Your task to perform on an android device: turn off picture-in-picture Image 0: 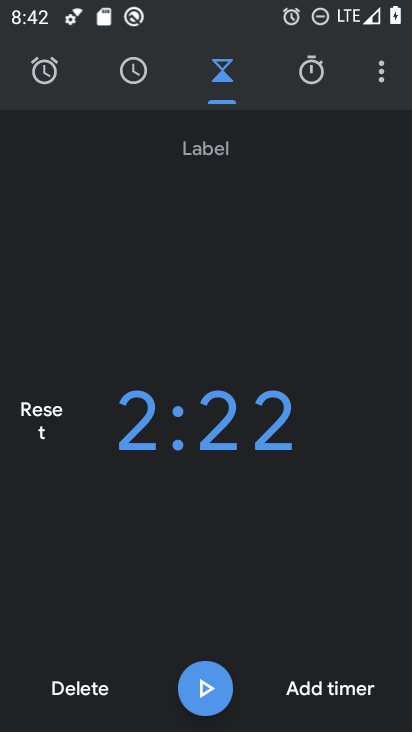
Step 0: press home button
Your task to perform on an android device: turn off picture-in-picture Image 1: 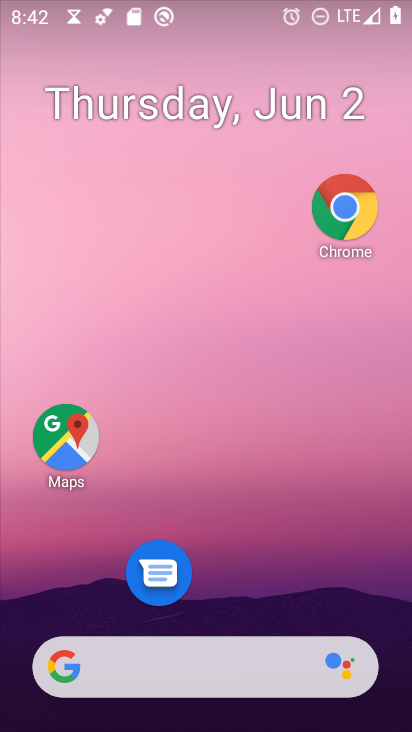
Step 1: drag from (359, 201) to (241, 440)
Your task to perform on an android device: turn off picture-in-picture Image 2: 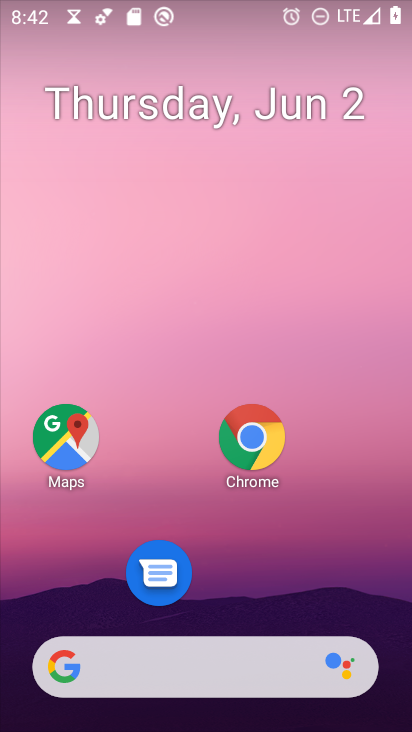
Step 2: click (254, 429)
Your task to perform on an android device: turn off picture-in-picture Image 3: 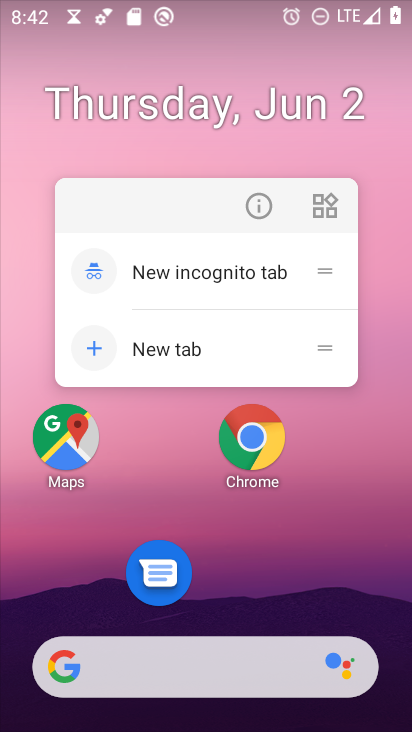
Step 3: click (258, 212)
Your task to perform on an android device: turn off picture-in-picture Image 4: 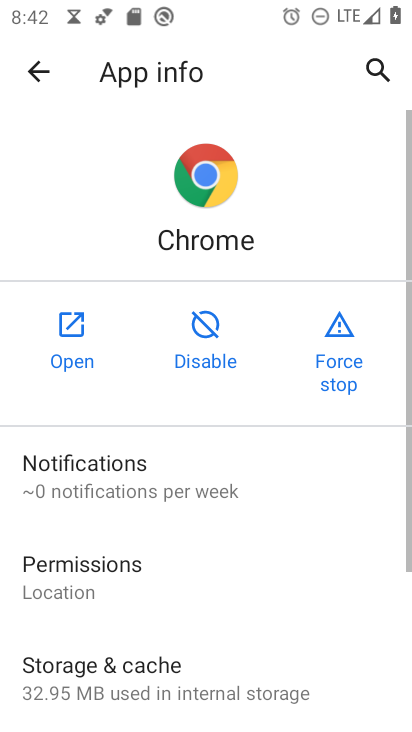
Step 4: drag from (234, 611) to (342, 68)
Your task to perform on an android device: turn off picture-in-picture Image 5: 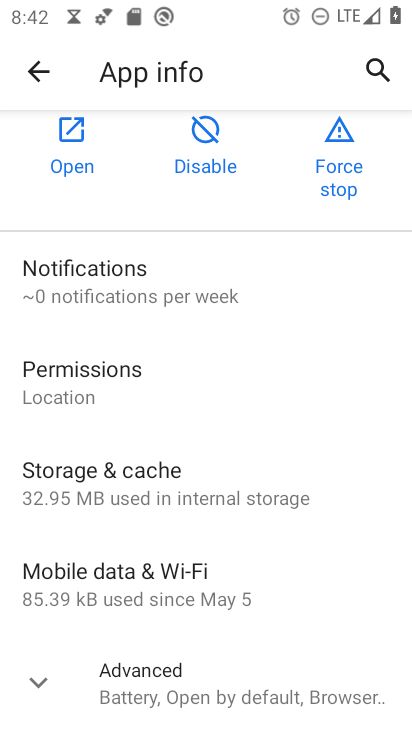
Step 5: click (132, 684)
Your task to perform on an android device: turn off picture-in-picture Image 6: 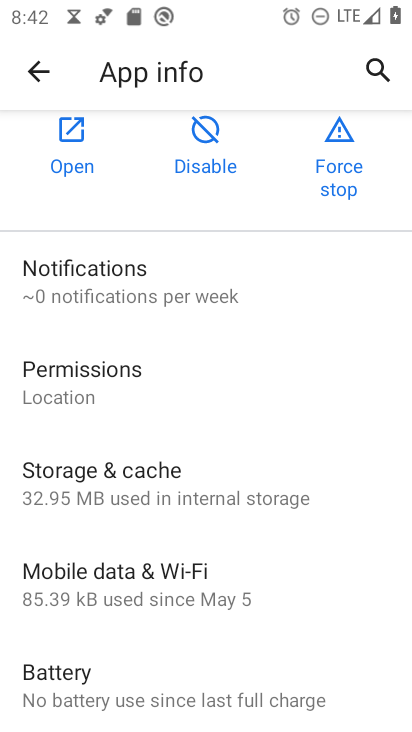
Step 6: drag from (126, 674) to (345, 115)
Your task to perform on an android device: turn off picture-in-picture Image 7: 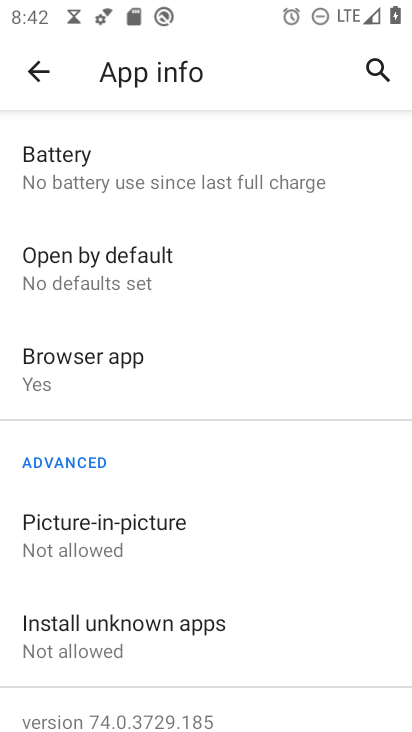
Step 7: click (103, 542)
Your task to perform on an android device: turn off picture-in-picture Image 8: 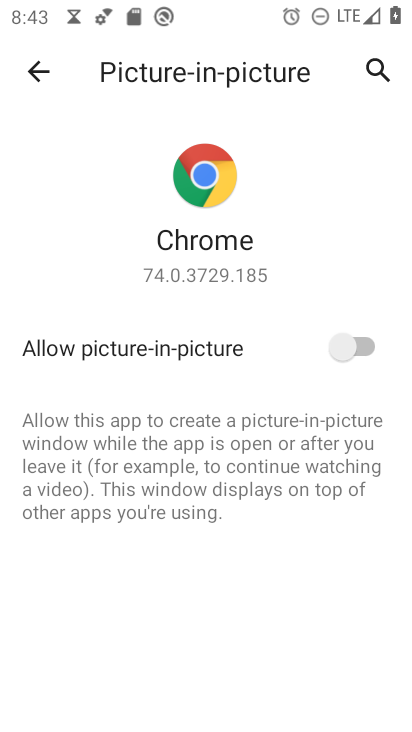
Step 8: task complete